Your task to perform on an android device: Open Maps and search for coffee Image 0: 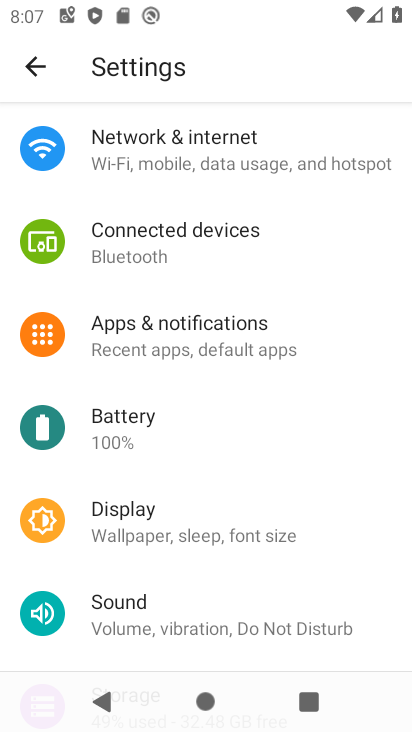
Step 0: press home button
Your task to perform on an android device: Open Maps and search for coffee Image 1: 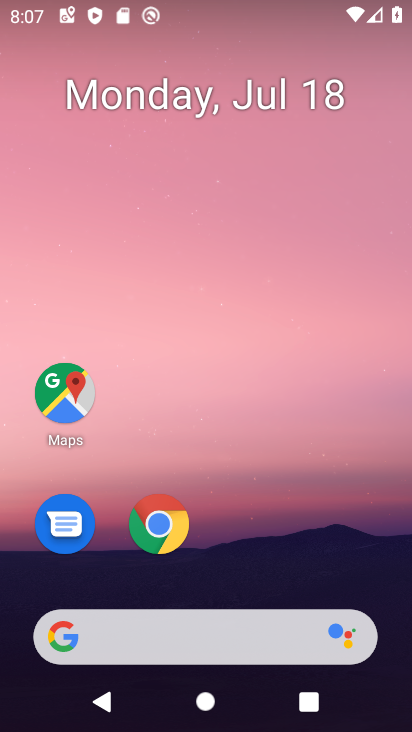
Step 1: click (54, 387)
Your task to perform on an android device: Open Maps and search for coffee Image 2: 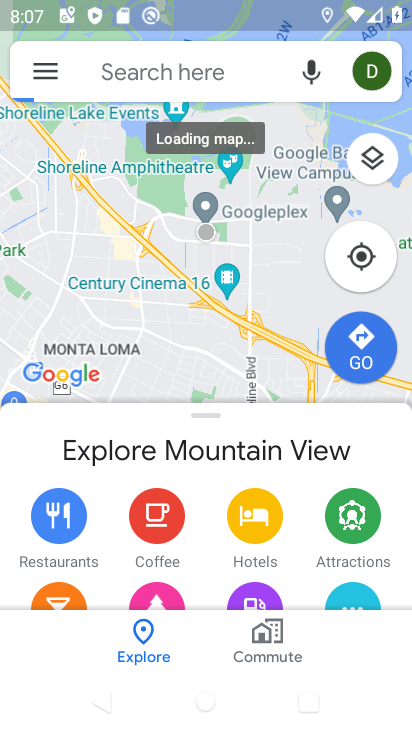
Step 2: click (144, 58)
Your task to perform on an android device: Open Maps and search for coffee Image 3: 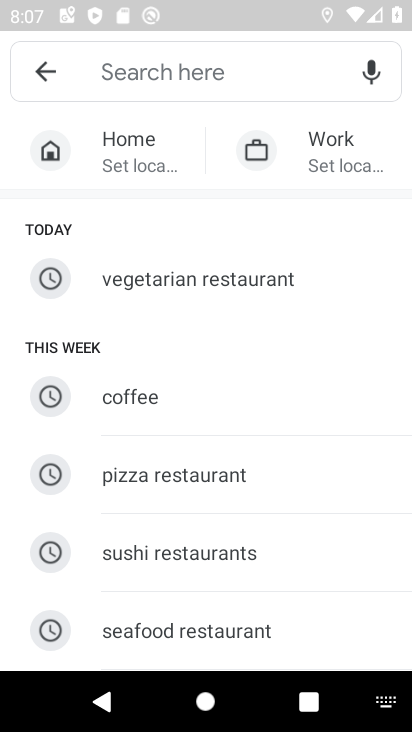
Step 3: click (140, 402)
Your task to perform on an android device: Open Maps and search for coffee Image 4: 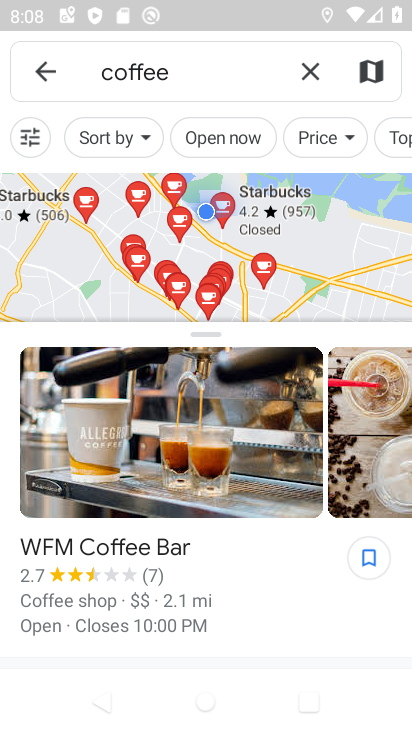
Step 4: task complete